Your task to perform on an android device: Open the stopwatch Image 0: 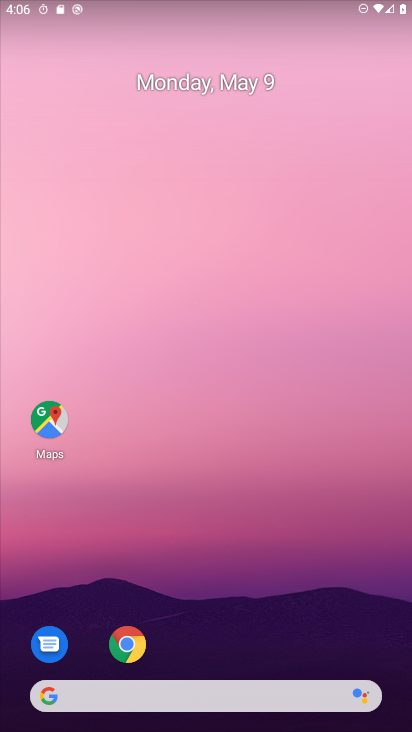
Step 0: drag from (245, 521) to (244, 163)
Your task to perform on an android device: Open the stopwatch Image 1: 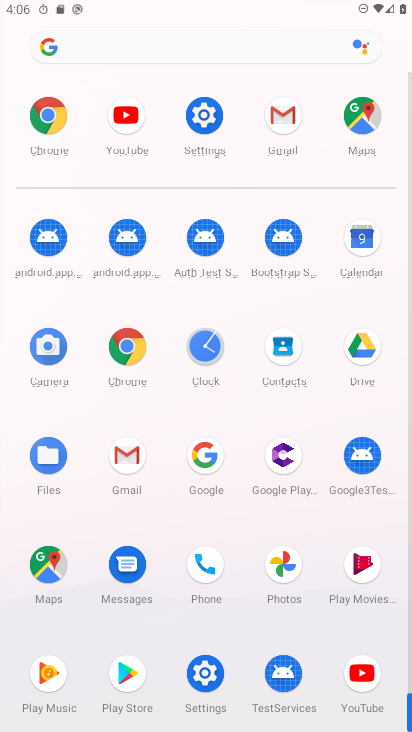
Step 1: click (205, 354)
Your task to perform on an android device: Open the stopwatch Image 2: 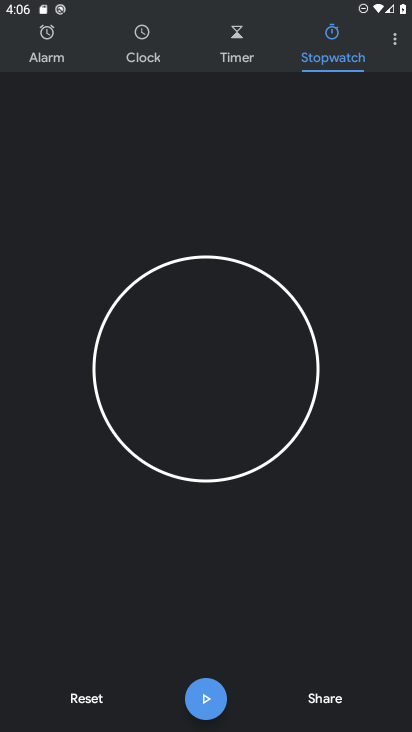
Step 2: task complete